Your task to perform on an android device: empty trash in the gmail app Image 0: 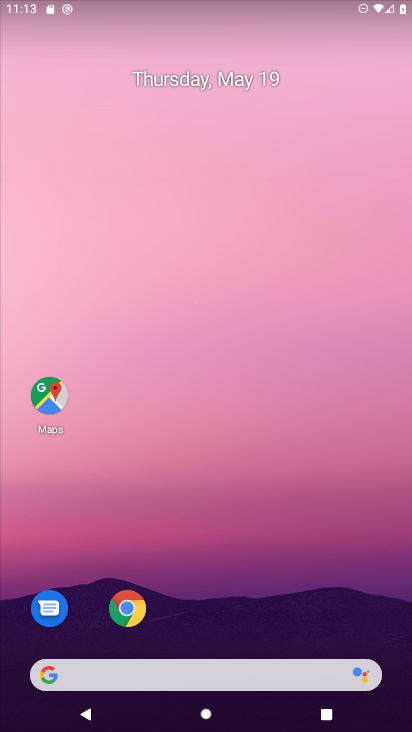
Step 0: drag from (266, 595) to (238, 53)
Your task to perform on an android device: empty trash in the gmail app Image 1: 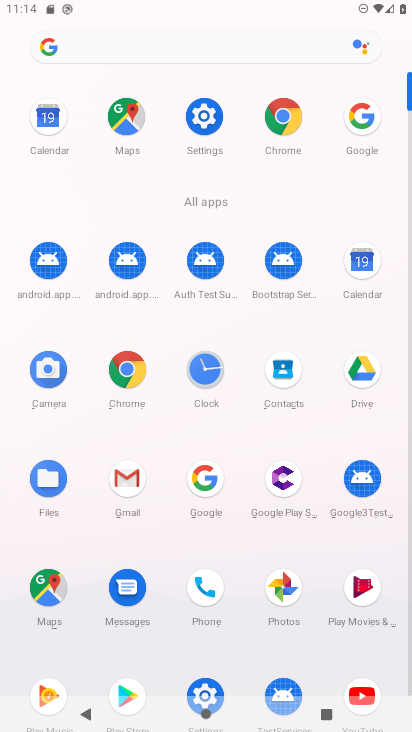
Step 1: click (126, 490)
Your task to perform on an android device: empty trash in the gmail app Image 2: 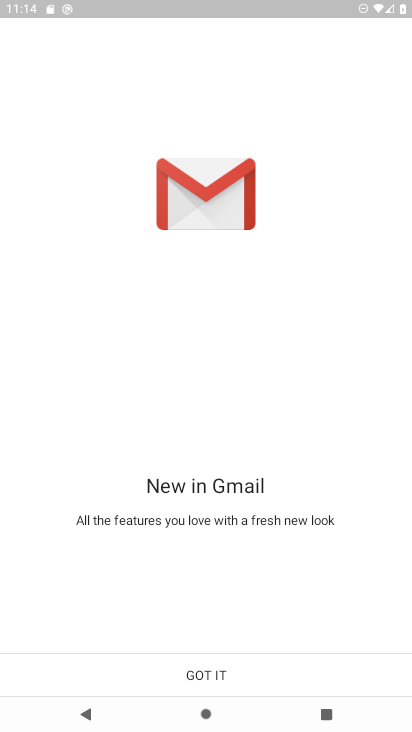
Step 2: click (155, 668)
Your task to perform on an android device: empty trash in the gmail app Image 3: 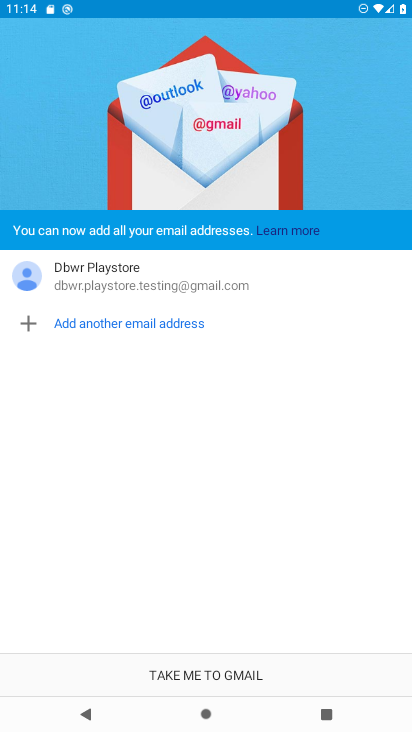
Step 3: click (85, 671)
Your task to perform on an android device: empty trash in the gmail app Image 4: 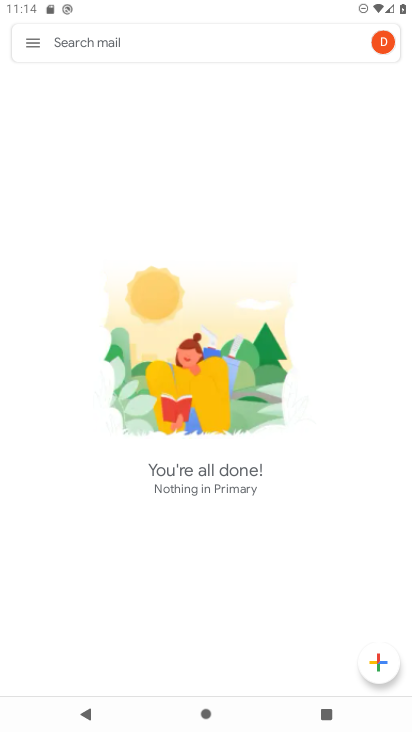
Step 4: click (35, 52)
Your task to perform on an android device: empty trash in the gmail app Image 5: 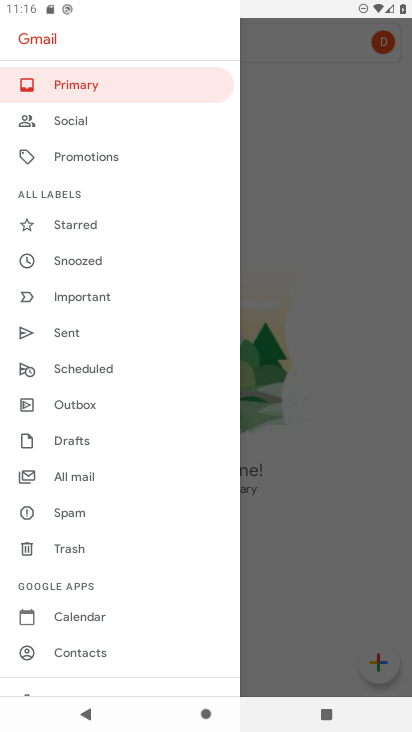
Step 5: drag from (127, 538) to (117, 378)
Your task to perform on an android device: empty trash in the gmail app Image 6: 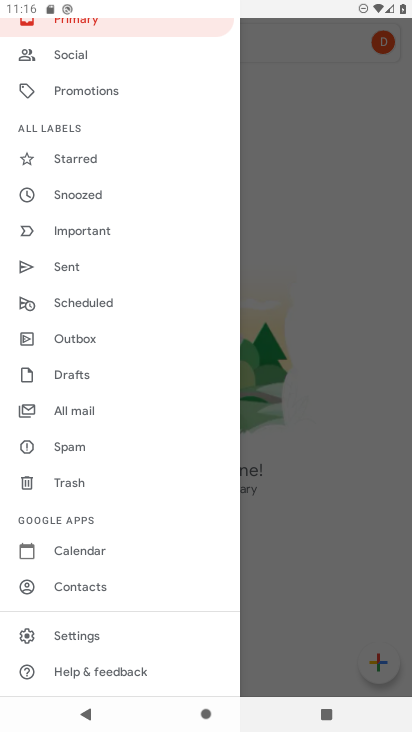
Step 6: click (57, 483)
Your task to perform on an android device: empty trash in the gmail app Image 7: 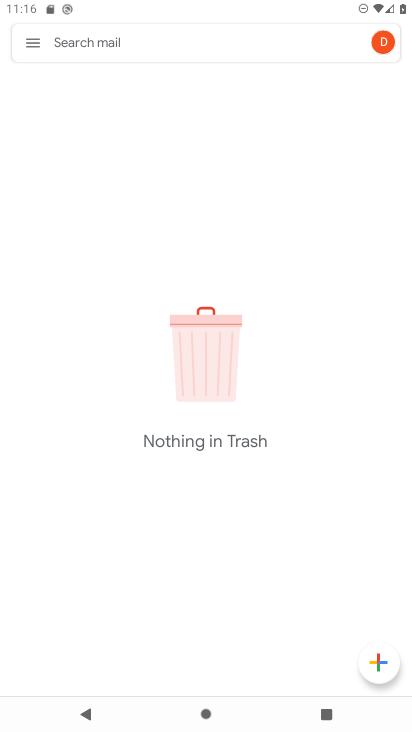
Step 7: task complete